Your task to perform on an android device: toggle show notifications on the lock screen Image 0: 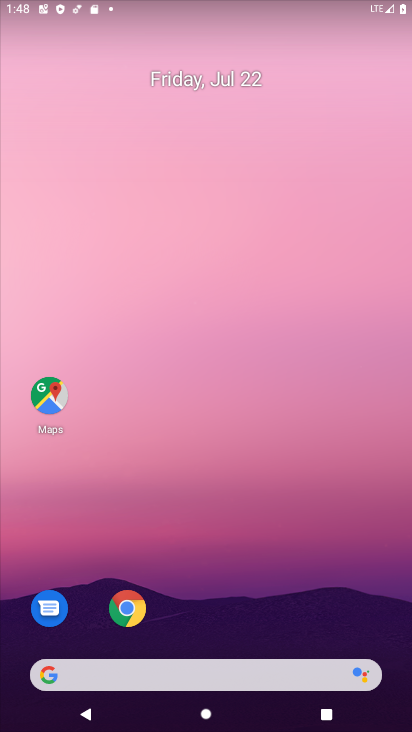
Step 0: drag from (239, 667) to (247, 225)
Your task to perform on an android device: toggle show notifications on the lock screen Image 1: 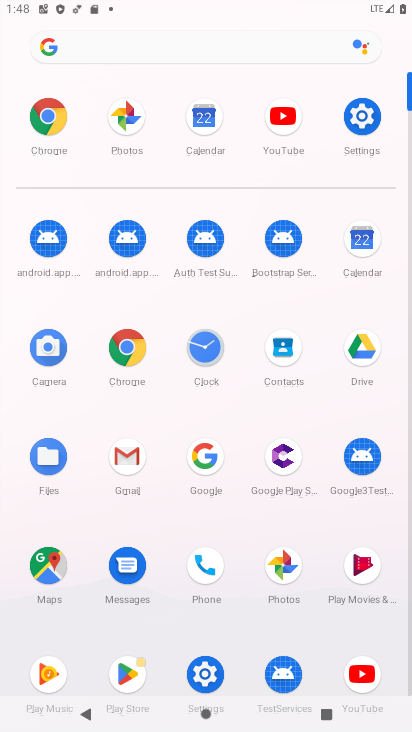
Step 1: click (360, 122)
Your task to perform on an android device: toggle show notifications on the lock screen Image 2: 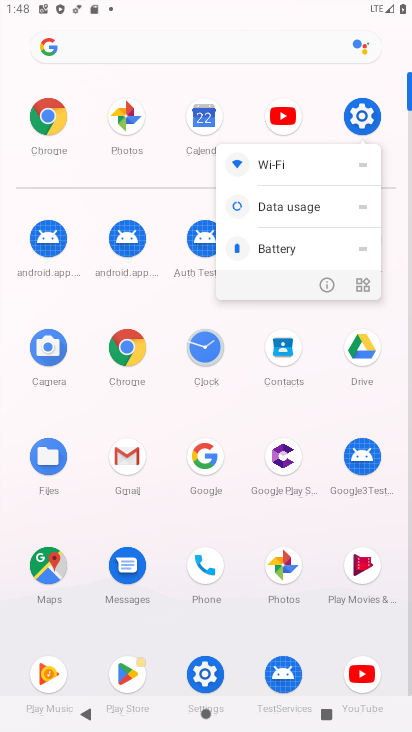
Step 2: click (362, 109)
Your task to perform on an android device: toggle show notifications on the lock screen Image 3: 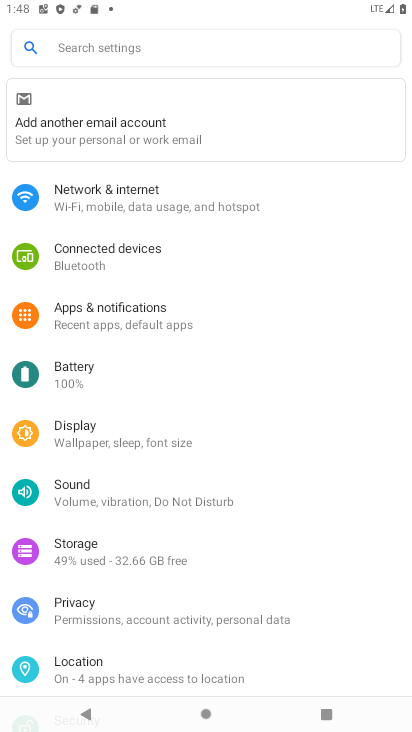
Step 3: click (114, 316)
Your task to perform on an android device: toggle show notifications on the lock screen Image 4: 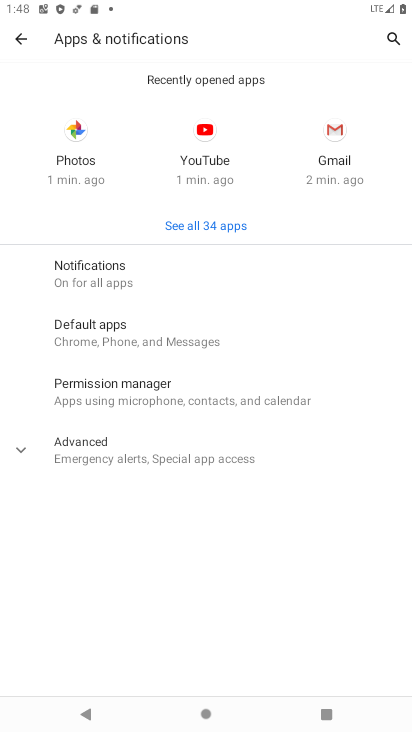
Step 4: click (83, 277)
Your task to perform on an android device: toggle show notifications on the lock screen Image 5: 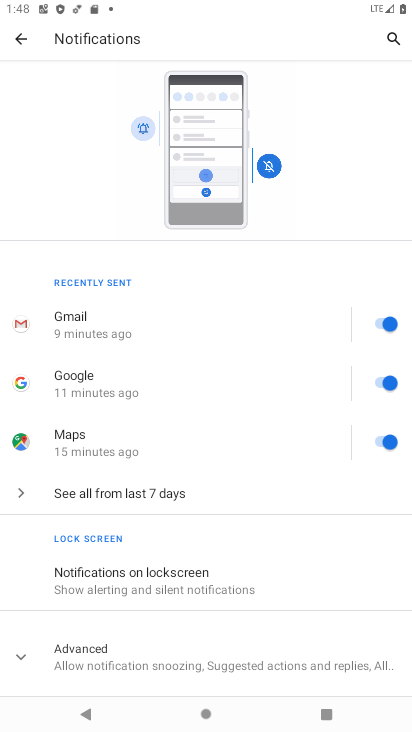
Step 5: click (129, 580)
Your task to perform on an android device: toggle show notifications on the lock screen Image 6: 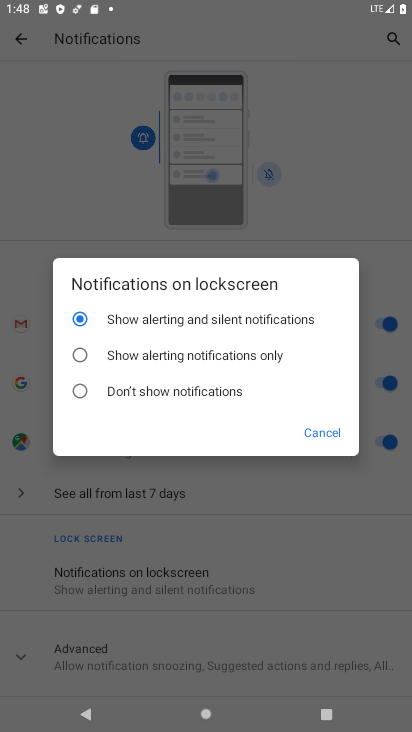
Step 6: click (81, 392)
Your task to perform on an android device: toggle show notifications on the lock screen Image 7: 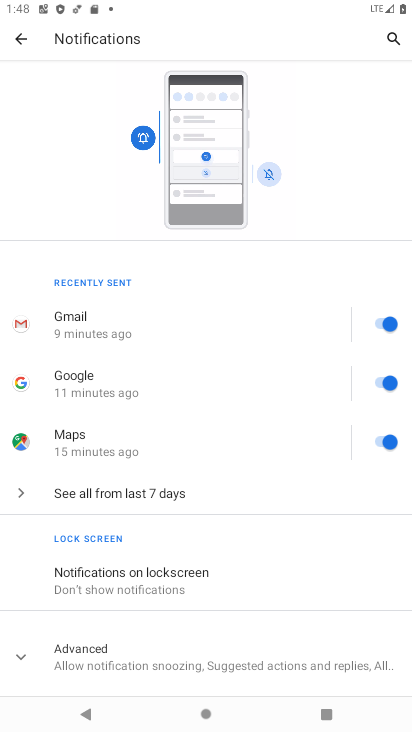
Step 7: task complete